Your task to perform on an android device: See recent photos Image 0: 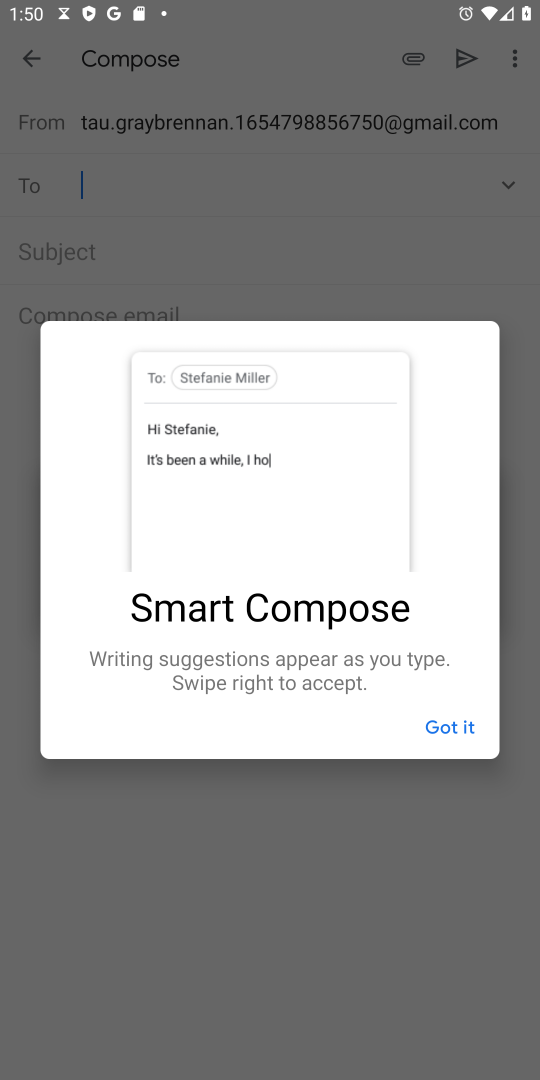
Step 0: press home button
Your task to perform on an android device: See recent photos Image 1: 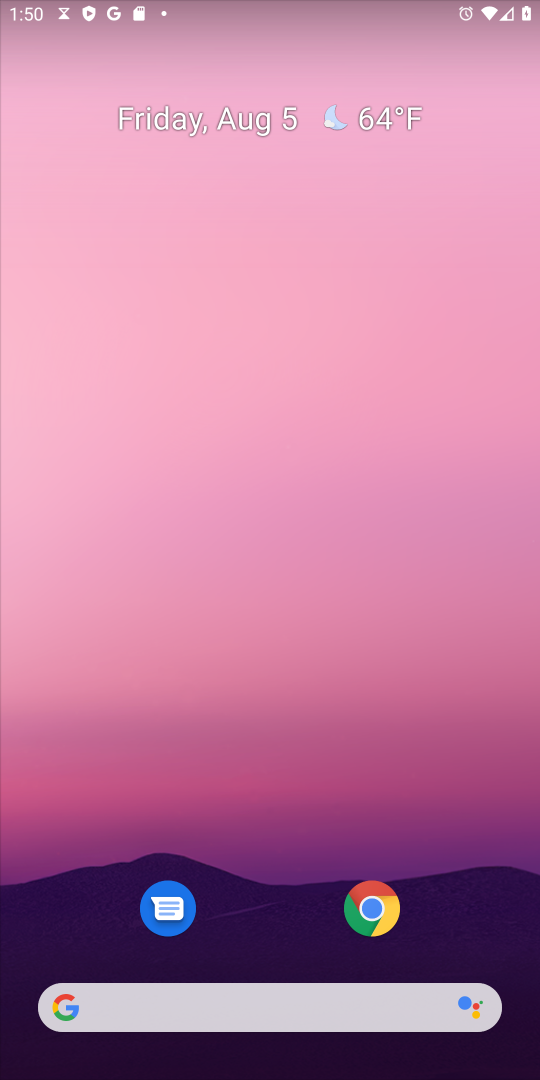
Step 1: drag from (303, 923) to (287, 119)
Your task to perform on an android device: See recent photos Image 2: 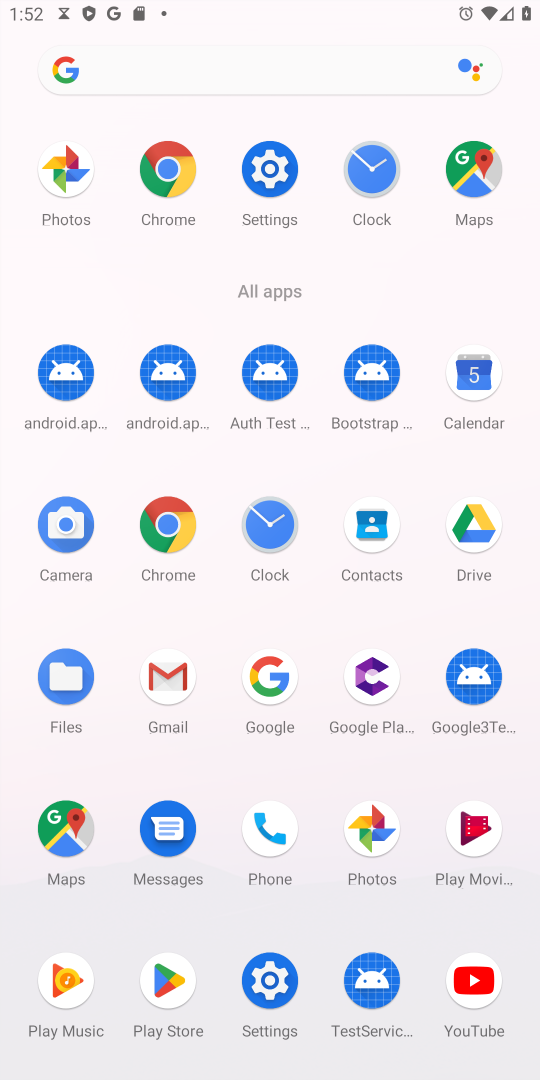
Step 2: click (381, 821)
Your task to perform on an android device: See recent photos Image 3: 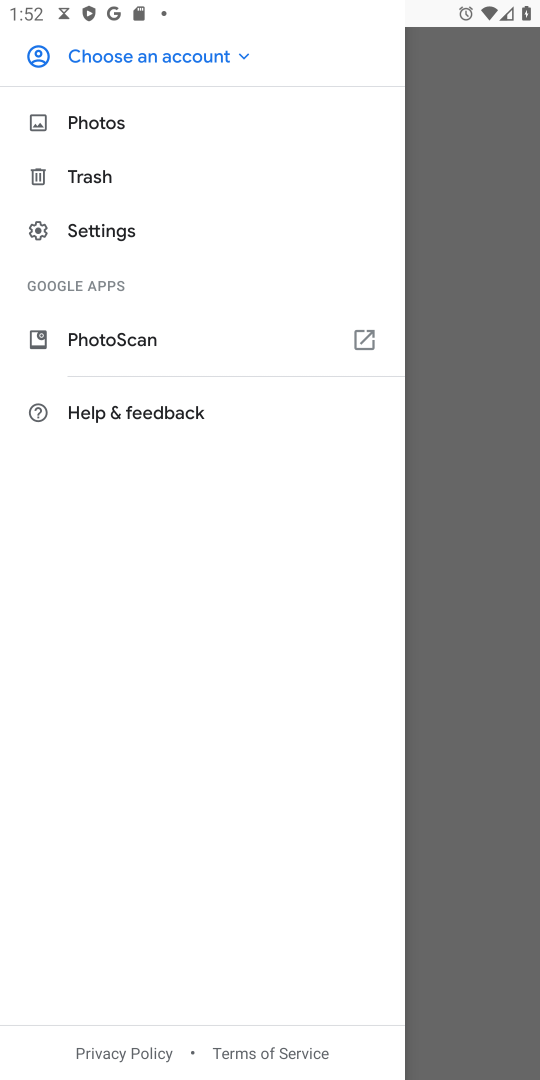
Step 3: click (443, 717)
Your task to perform on an android device: See recent photos Image 4: 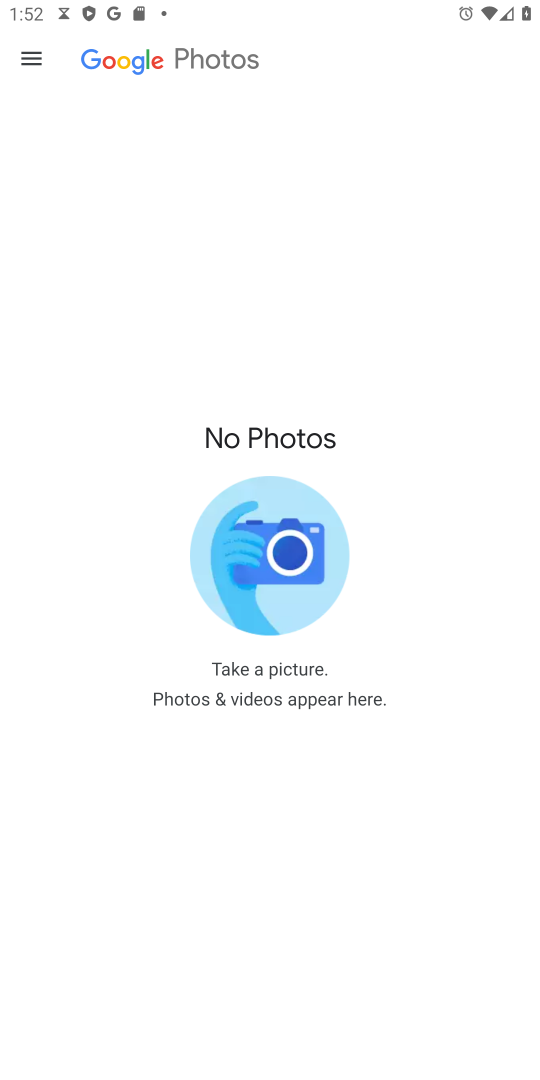
Step 4: task complete